Your task to perform on an android device: turn on notifications settings in the gmail app Image 0: 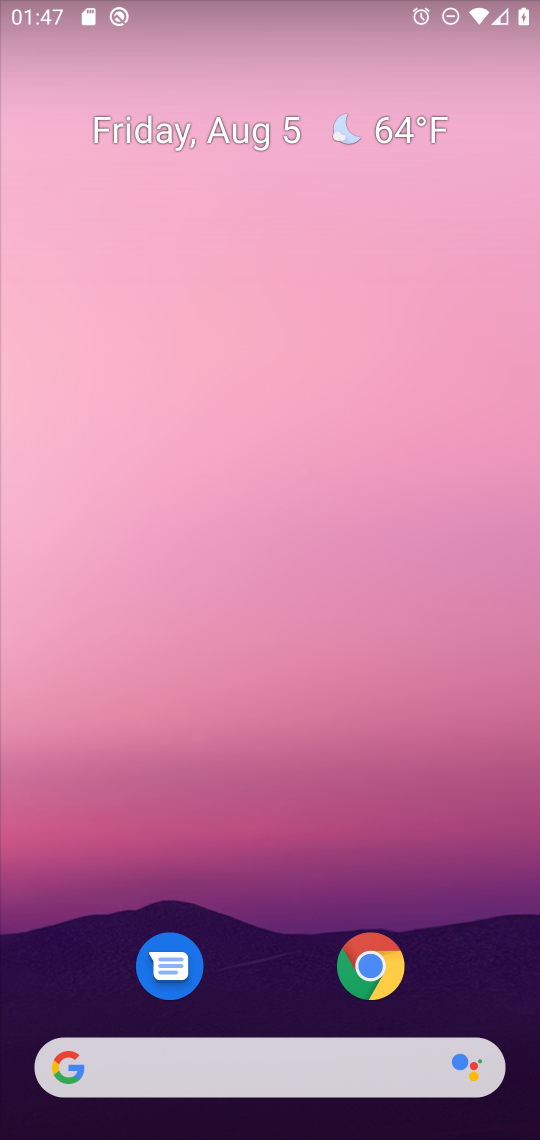
Step 0: drag from (281, 784) to (281, 66)
Your task to perform on an android device: turn on notifications settings in the gmail app Image 1: 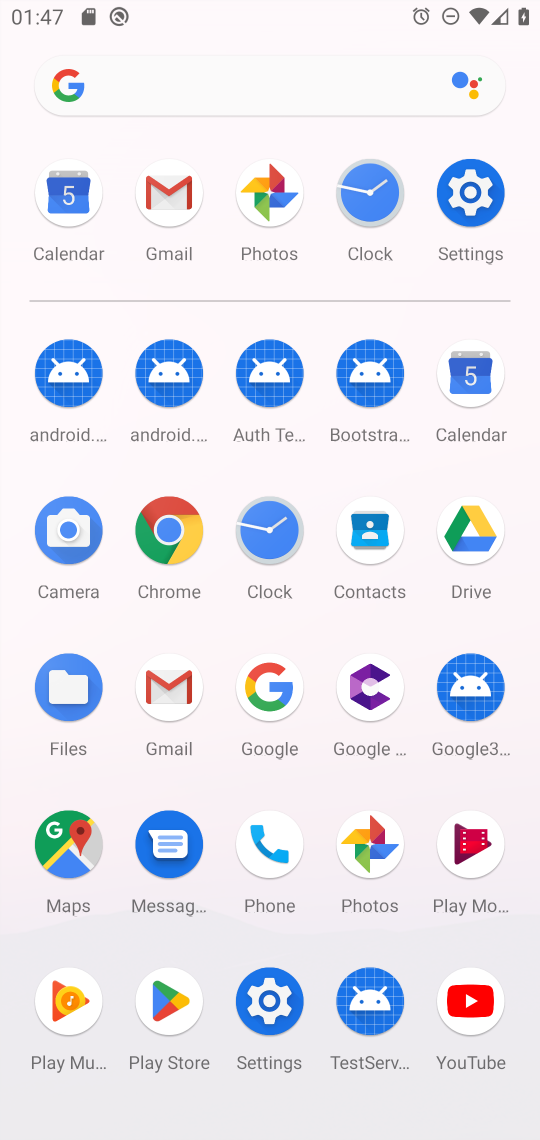
Step 1: click (465, 201)
Your task to perform on an android device: turn on notifications settings in the gmail app Image 2: 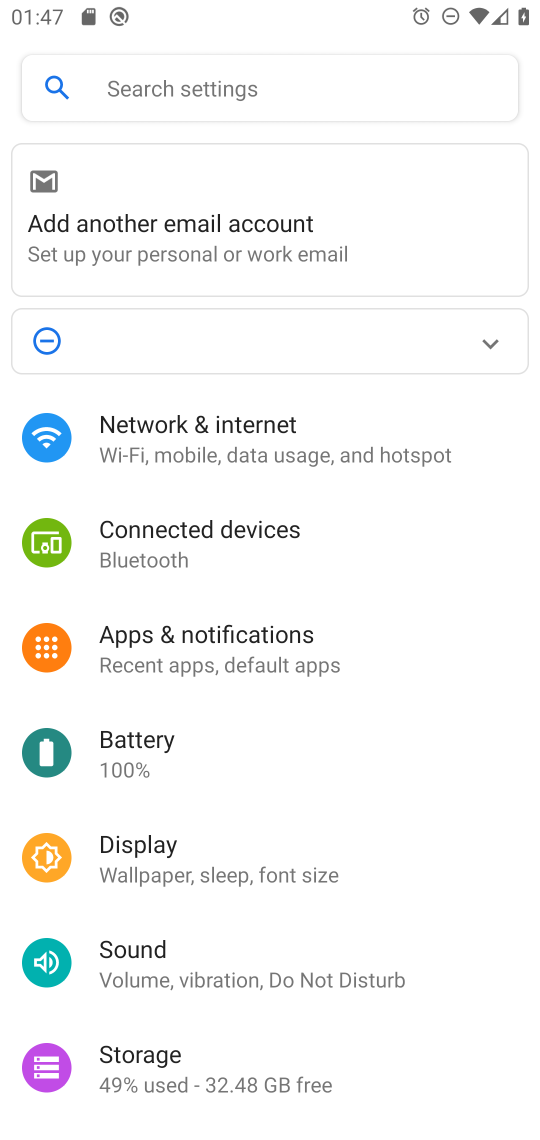
Step 2: click (263, 634)
Your task to perform on an android device: turn on notifications settings in the gmail app Image 3: 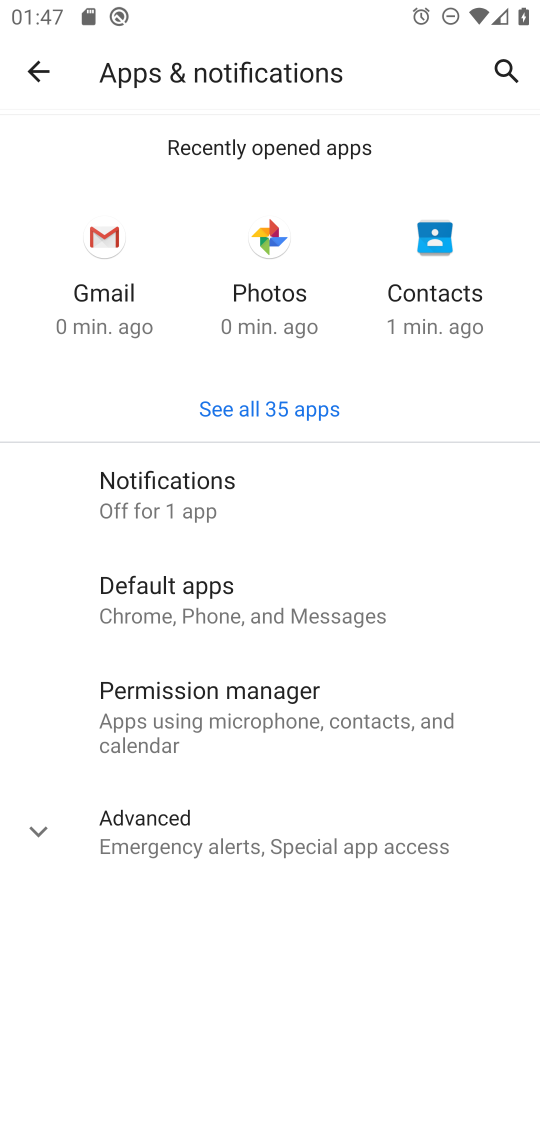
Step 3: click (198, 488)
Your task to perform on an android device: turn on notifications settings in the gmail app Image 4: 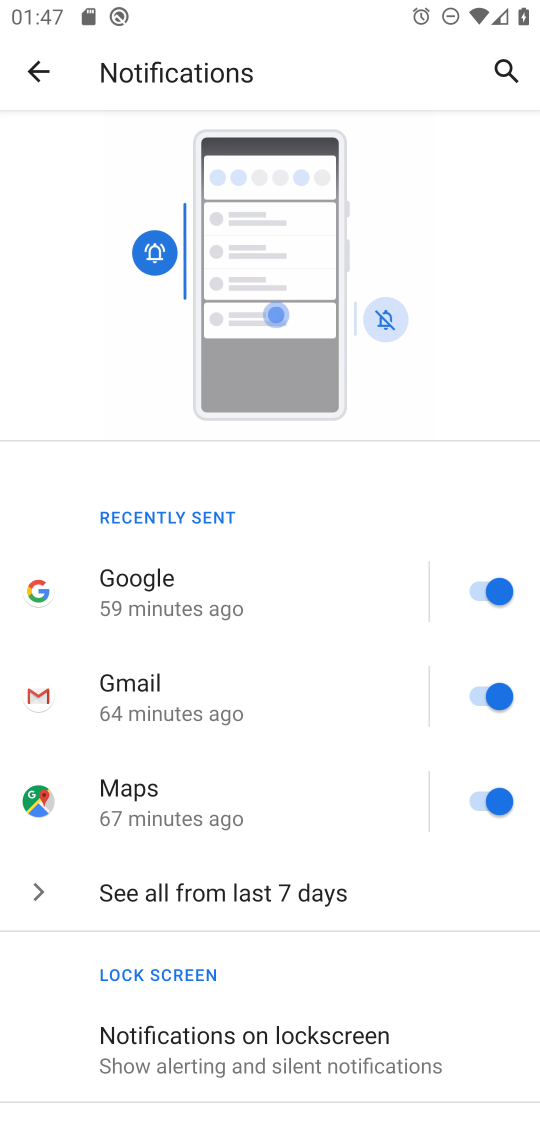
Step 4: task complete